Your task to perform on an android device: empty trash in google photos Image 0: 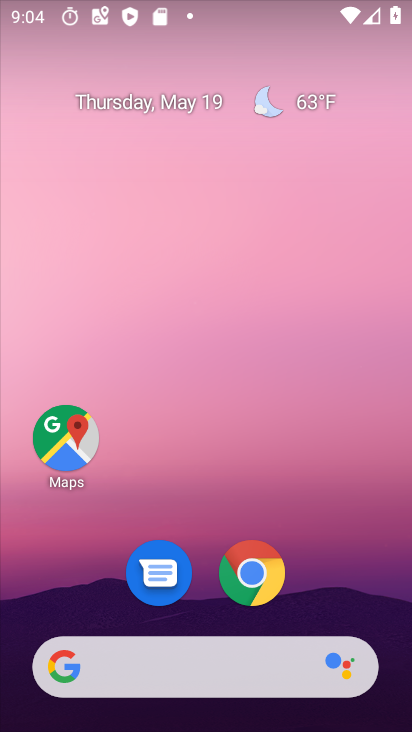
Step 0: drag from (358, 628) to (345, 36)
Your task to perform on an android device: empty trash in google photos Image 1: 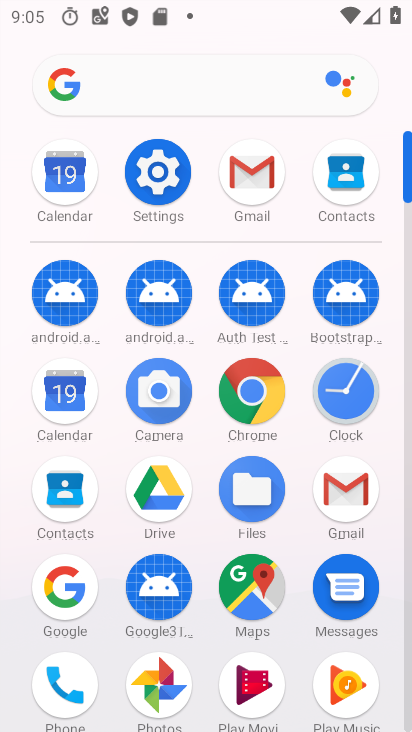
Step 1: click (167, 675)
Your task to perform on an android device: empty trash in google photos Image 2: 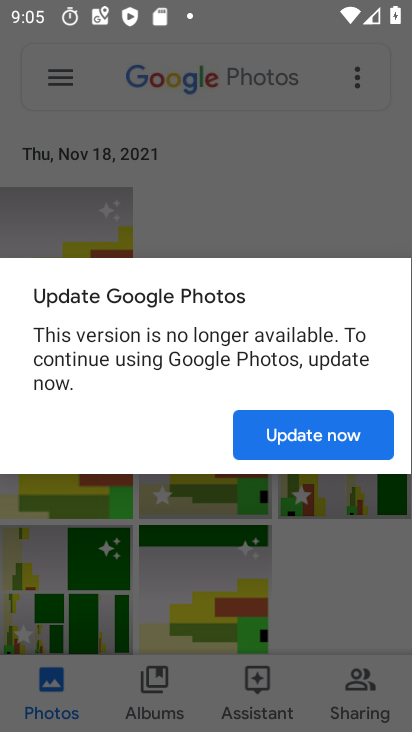
Step 2: click (325, 425)
Your task to perform on an android device: empty trash in google photos Image 3: 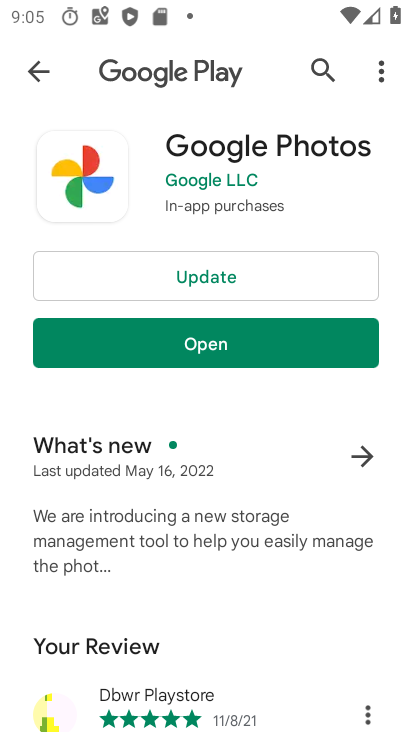
Step 3: click (189, 343)
Your task to perform on an android device: empty trash in google photos Image 4: 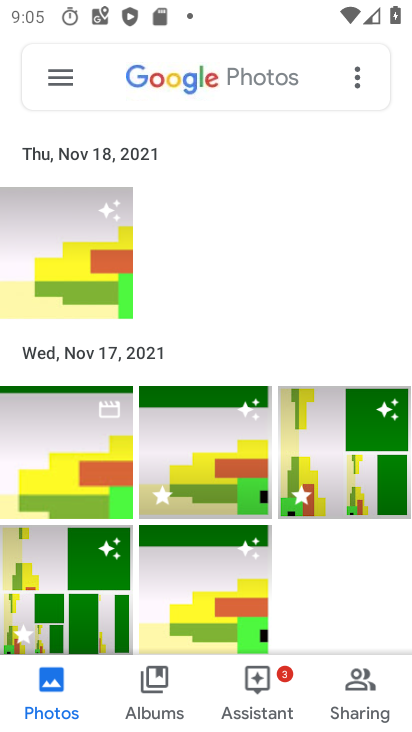
Step 4: click (67, 85)
Your task to perform on an android device: empty trash in google photos Image 5: 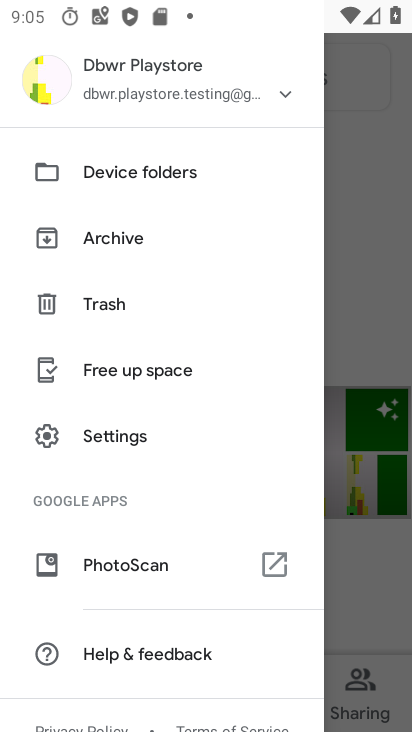
Step 5: click (114, 308)
Your task to perform on an android device: empty trash in google photos Image 6: 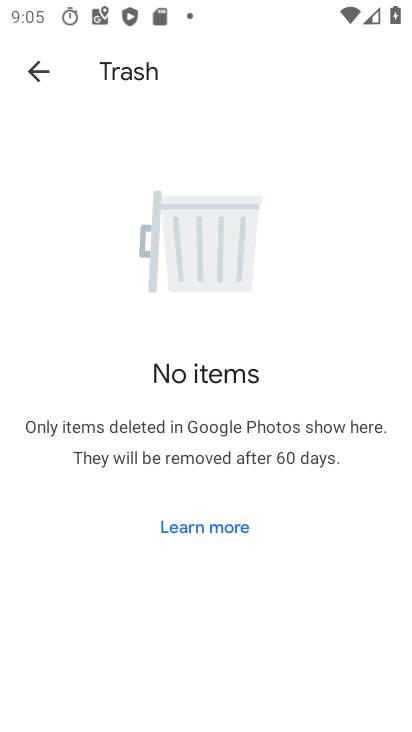
Step 6: task complete